Your task to perform on an android device: find snoozed emails in the gmail app Image 0: 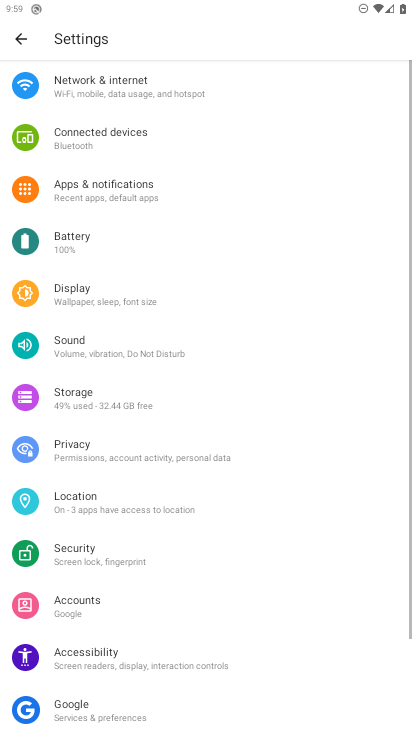
Step 0: press home button
Your task to perform on an android device: find snoozed emails in the gmail app Image 1: 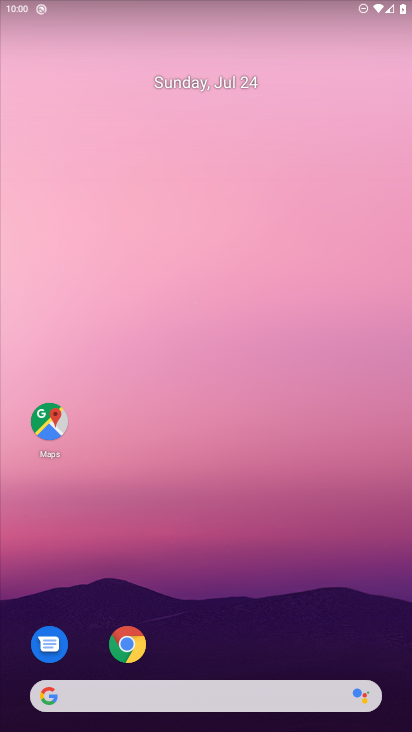
Step 1: drag from (305, 696) to (213, 165)
Your task to perform on an android device: find snoozed emails in the gmail app Image 2: 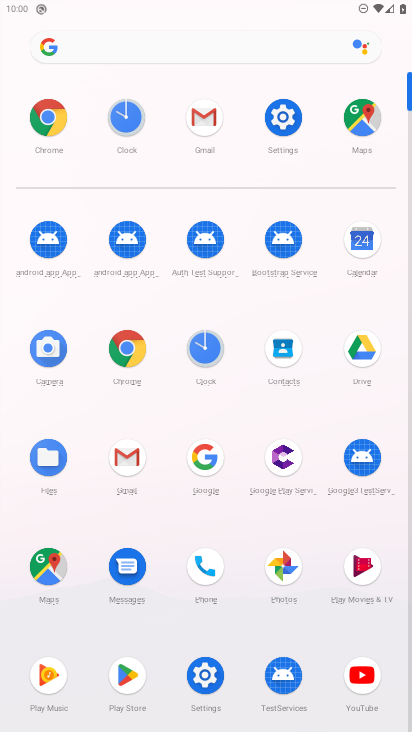
Step 2: click (117, 480)
Your task to perform on an android device: find snoozed emails in the gmail app Image 3: 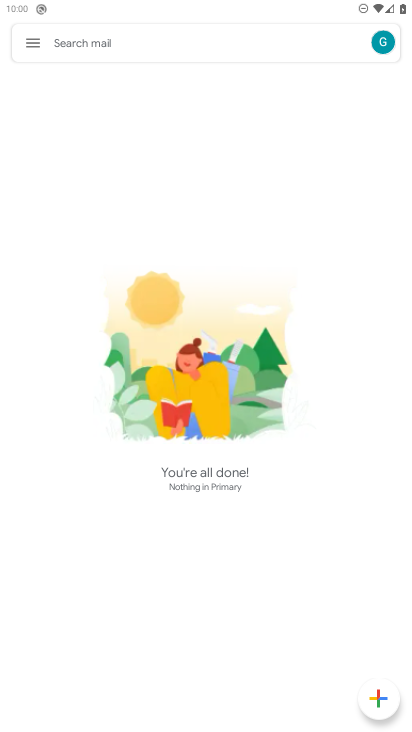
Step 3: click (33, 52)
Your task to perform on an android device: find snoozed emails in the gmail app Image 4: 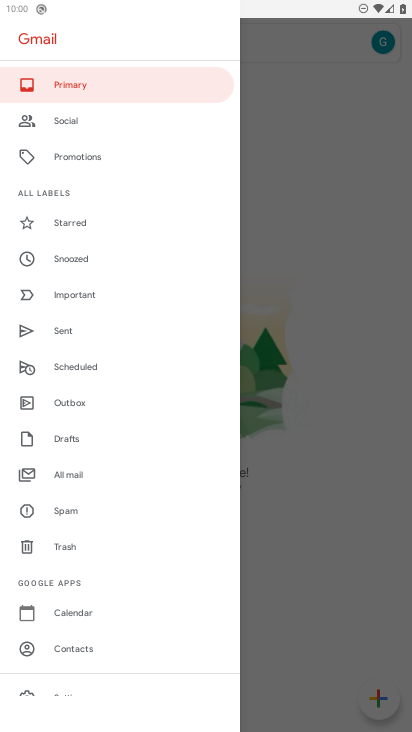
Step 4: click (60, 266)
Your task to perform on an android device: find snoozed emails in the gmail app Image 5: 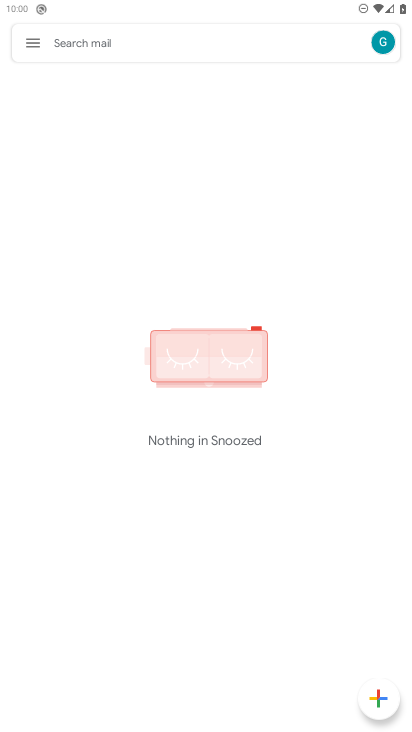
Step 5: task complete